Your task to perform on an android device: snooze an email in the gmail app Image 0: 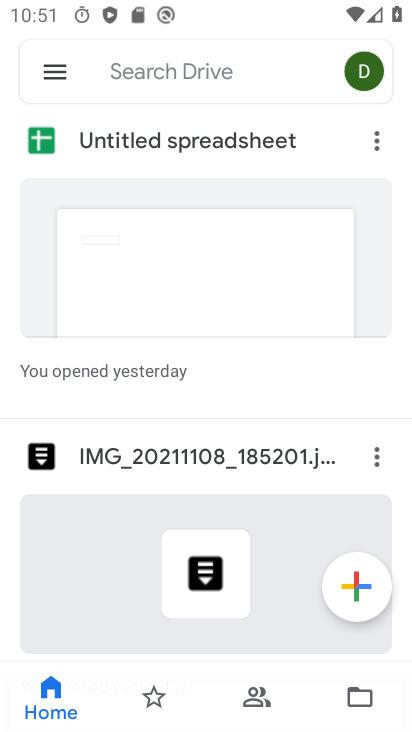
Step 0: press back button
Your task to perform on an android device: snooze an email in the gmail app Image 1: 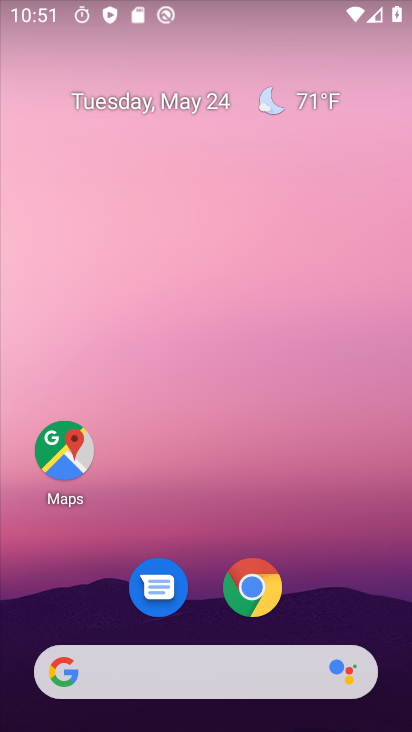
Step 1: drag from (315, 646) to (225, 73)
Your task to perform on an android device: snooze an email in the gmail app Image 2: 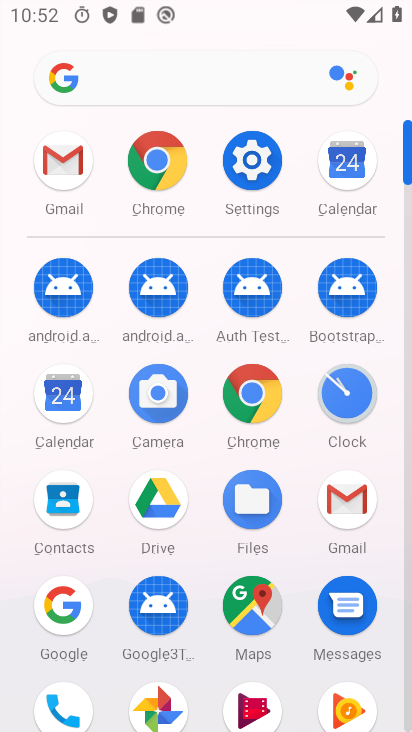
Step 2: click (339, 494)
Your task to perform on an android device: snooze an email in the gmail app Image 3: 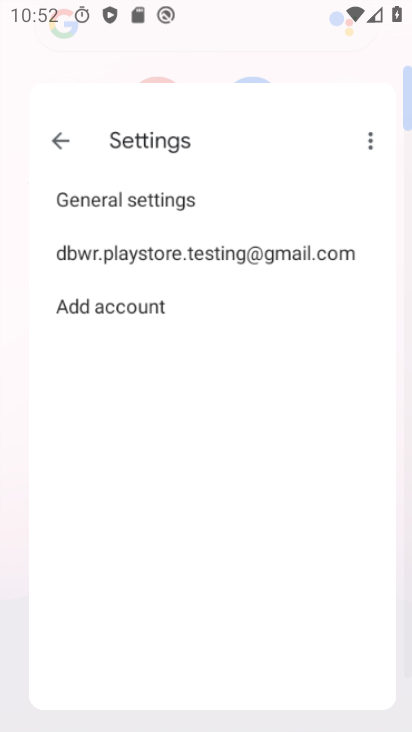
Step 3: click (346, 491)
Your task to perform on an android device: snooze an email in the gmail app Image 4: 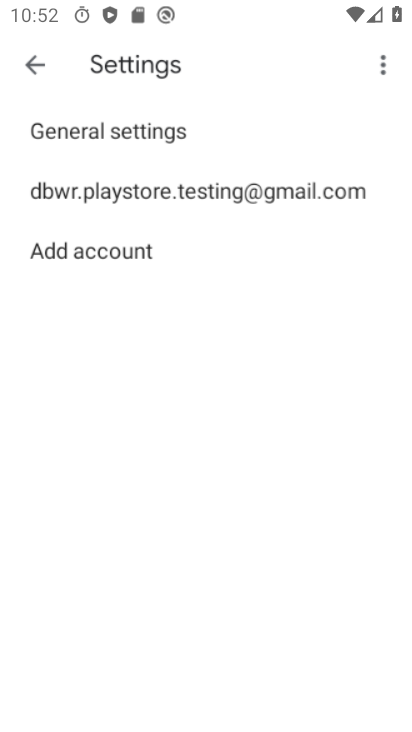
Step 4: click (346, 491)
Your task to perform on an android device: snooze an email in the gmail app Image 5: 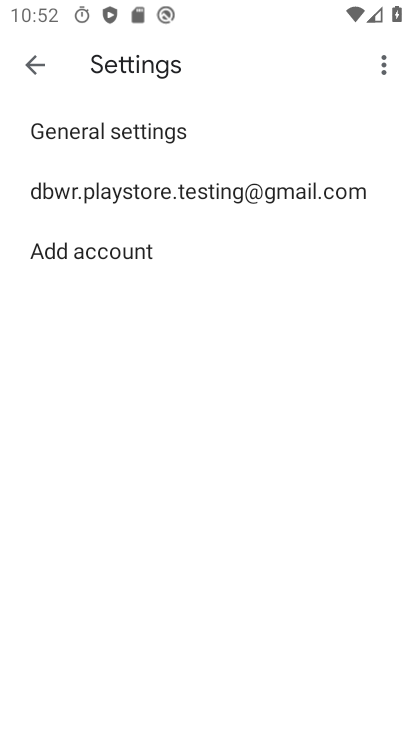
Step 5: click (133, 193)
Your task to perform on an android device: snooze an email in the gmail app Image 6: 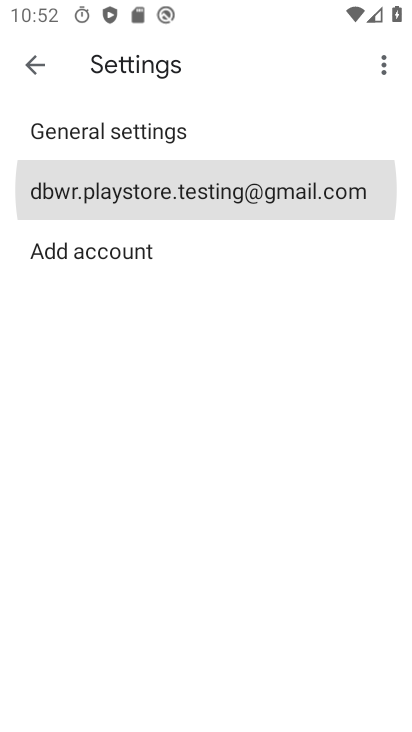
Step 6: click (133, 193)
Your task to perform on an android device: snooze an email in the gmail app Image 7: 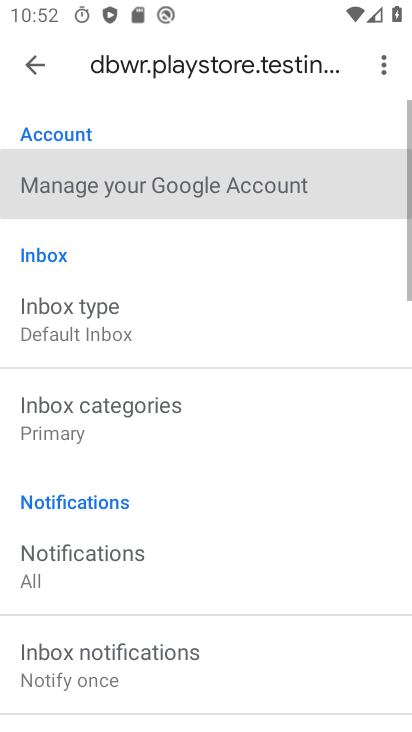
Step 7: click (140, 191)
Your task to perform on an android device: snooze an email in the gmail app Image 8: 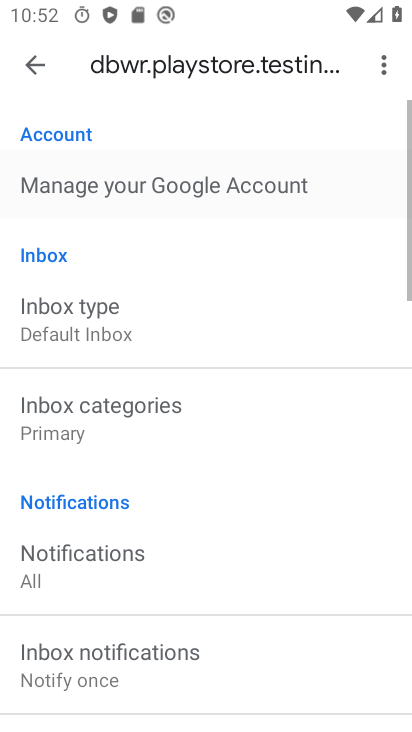
Step 8: click (141, 191)
Your task to perform on an android device: snooze an email in the gmail app Image 9: 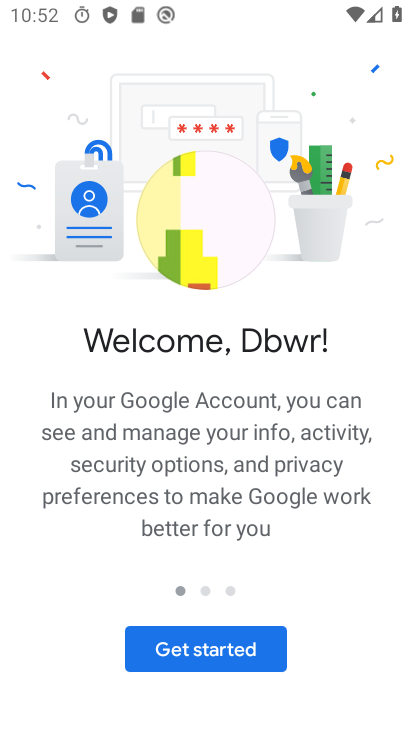
Step 9: click (200, 662)
Your task to perform on an android device: snooze an email in the gmail app Image 10: 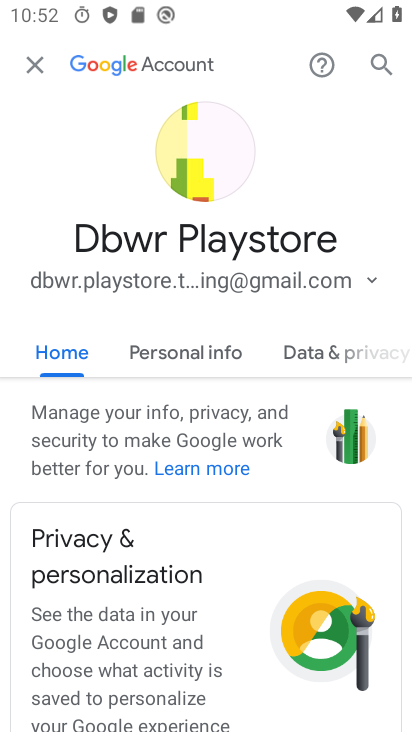
Step 10: click (38, 65)
Your task to perform on an android device: snooze an email in the gmail app Image 11: 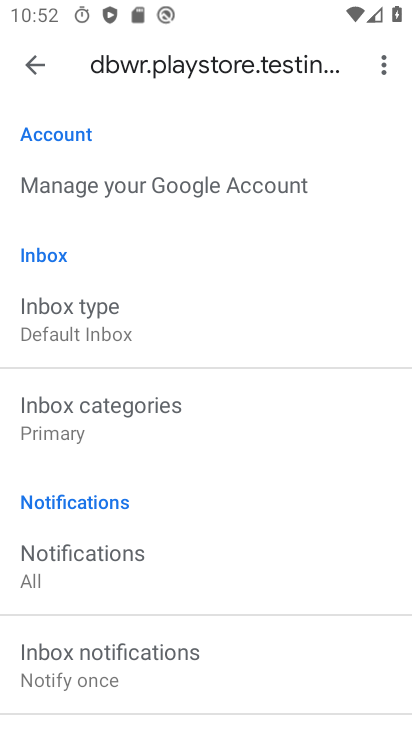
Step 11: drag from (152, 710) to (122, 176)
Your task to perform on an android device: snooze an email in the gmail app Image 12: 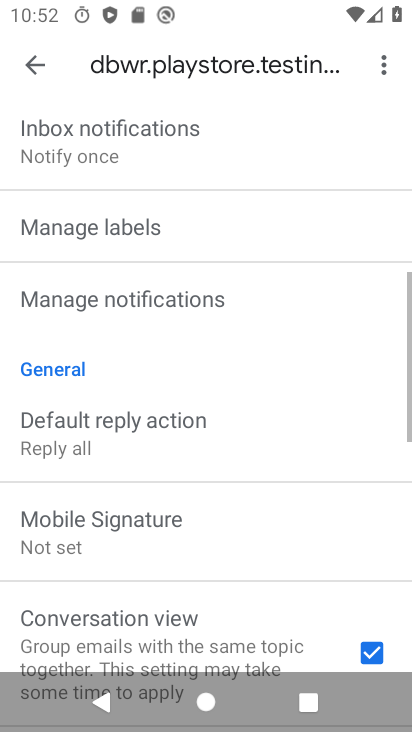
Step 12: drag from (258, 534) to (359, 173)
Your task to perform on an android device: snooze an email in the gmail app Image 13: 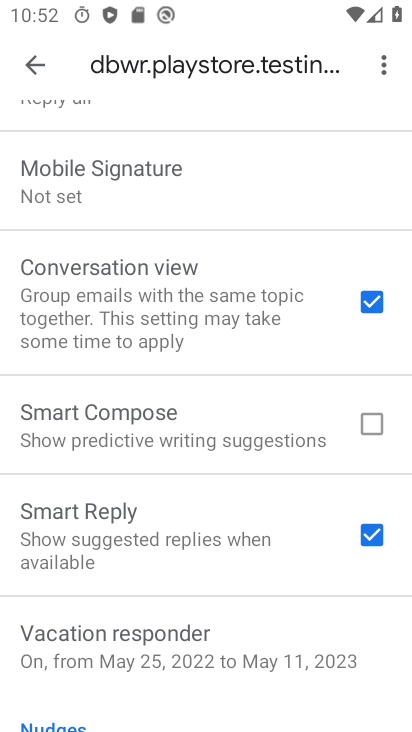
Step 13: press back button
Your task to perform on an android device: snooze an email in the gmail app Image 14: 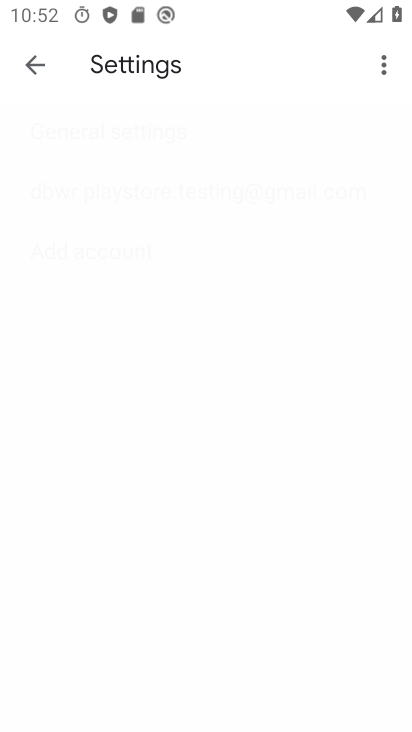
Step 14: press back button
Your task to perform on an android device: snooze an email in the gmail app Image 15: 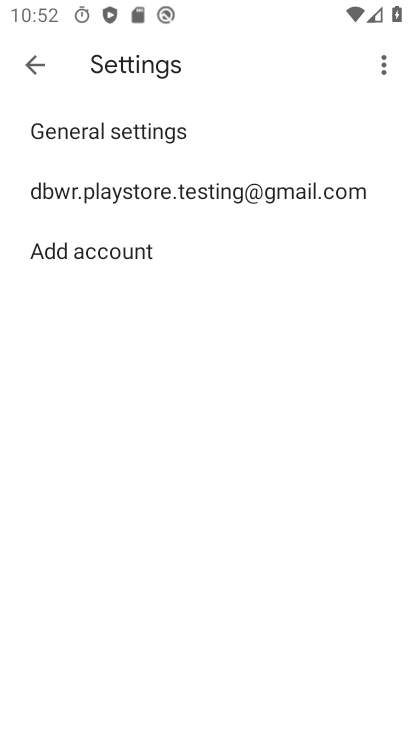
Step 15: press back button
Your task to perform on an android device: snooze an email in the gmail app Image 16: 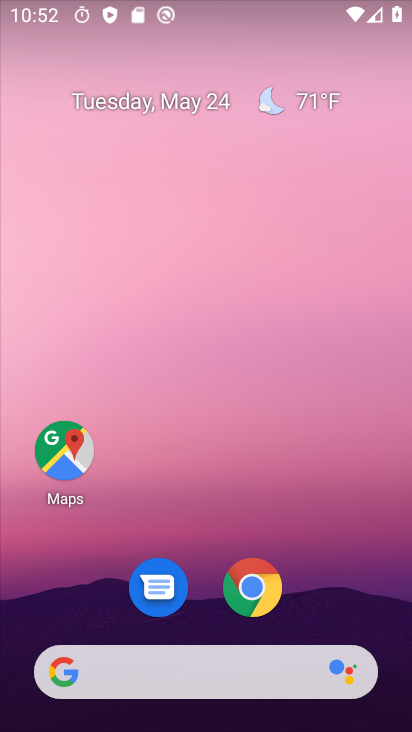
Step 16: drag from (280, 708) to (178, 205)
Your task to perform on an android device: snooze an email in the gmail app Image 17: 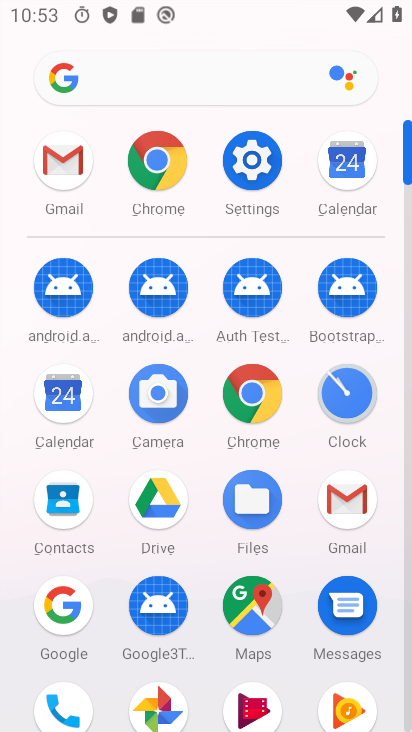
Step 17: click (342, 503)
Your task to perform on an android device: snooze an email in the gmail app Image 18: 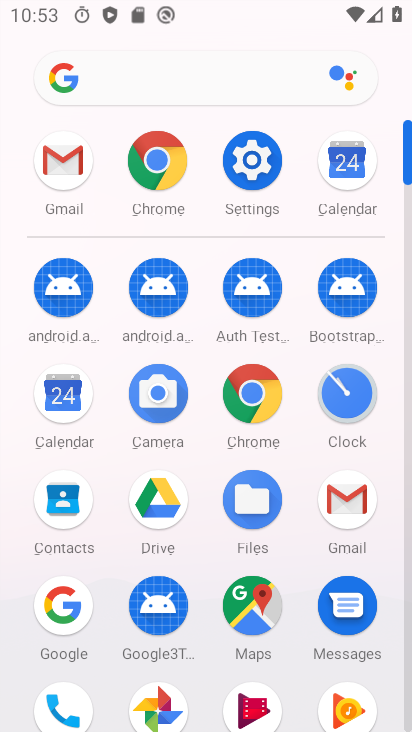
Step 18: click (343, 501)
Your task to perform on an android device: snooze an email in the gmail app Image 19: 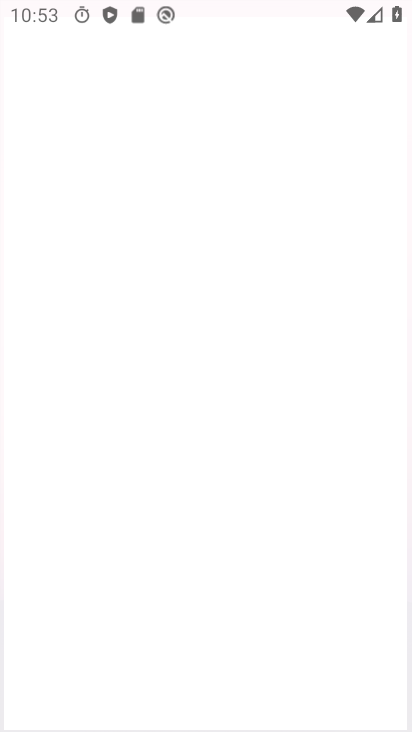
Step 19: click (344, 500)
Your task to perform on an android device: snooze an email in the gmail app Image 20: 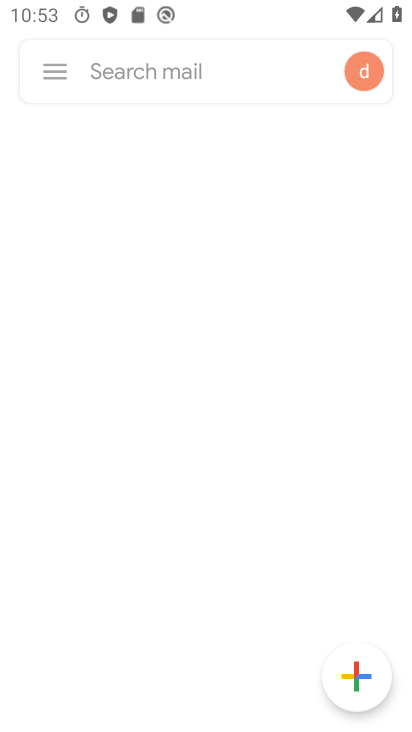
Step 20: click (344, 500)
Your task to perform on an android device: snooze an email in the gmail app Image 21: 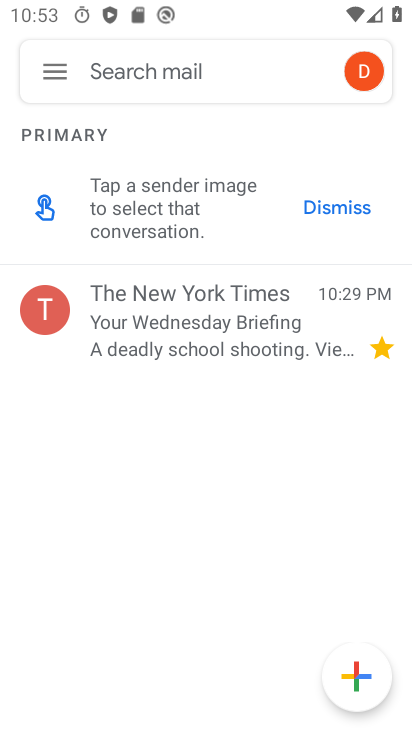
Step 21: click (49, 80)
Your task to perform on an android device: snooze an email in the gmail app Image 22: 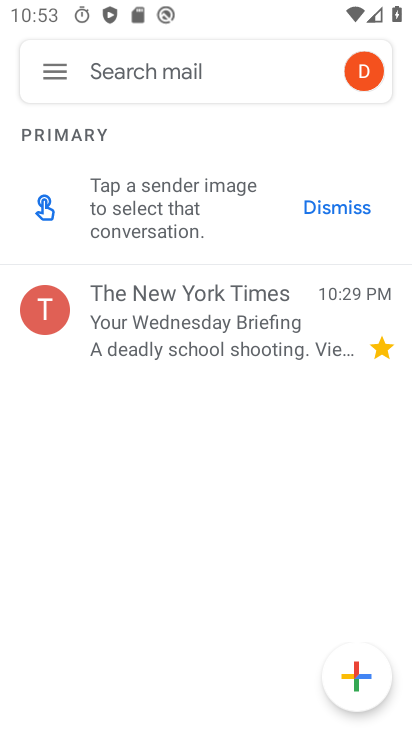
Step 22: click (50, 76)
Your task to perform on an android device: snooze an email in the gmail app Image 23: 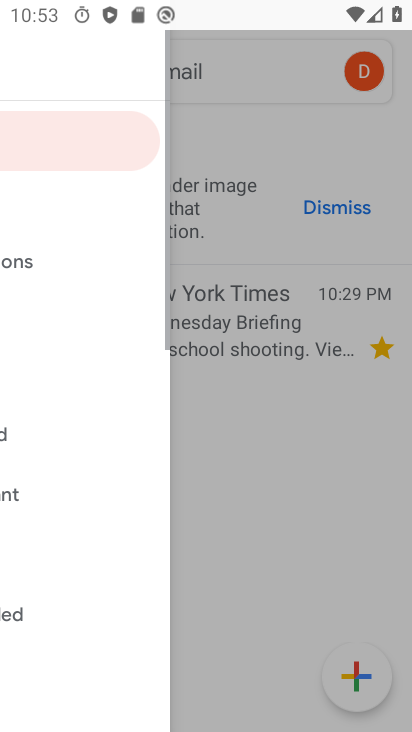
Step 23: click (54, 72)
Your task to perform on an android device: snooze an email in the gmail app Image 24: 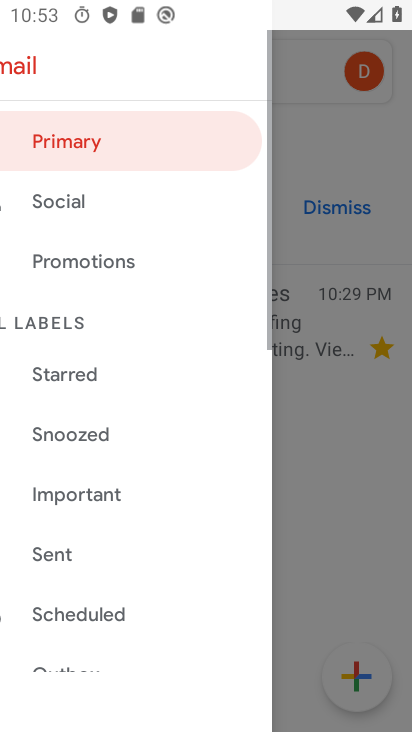
Step 24: drag from (54, 72) to (105, 613)
Your task to perform on an android device: snooze an email in the gmail app Image 25: 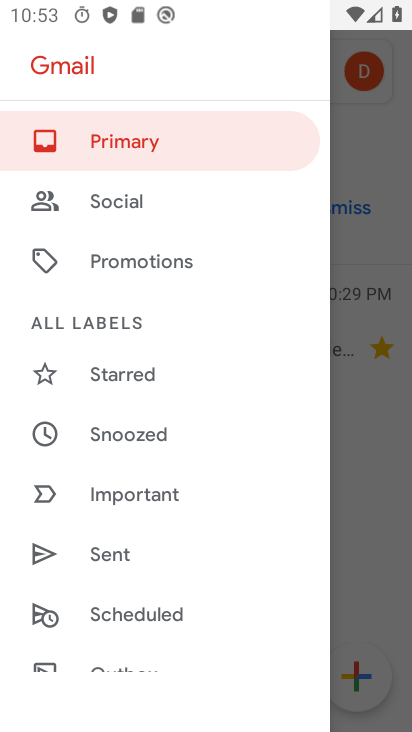
Step 25: drag from (184, 547) to (201, 107)
Your task to perform on an android device: snooze an email in the gmail app Image 26: 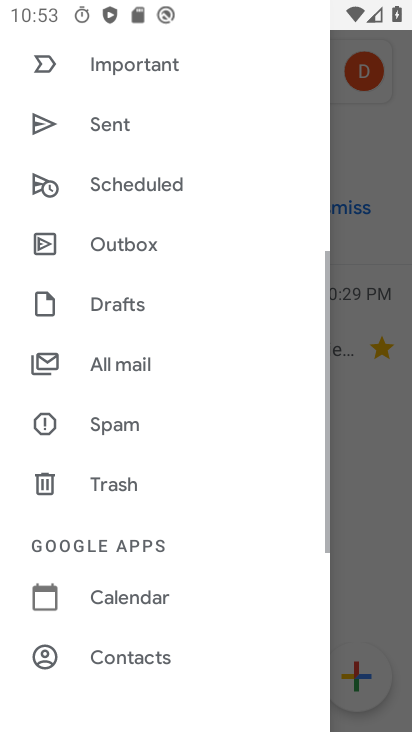
Step 26: drag from (180, 501) to (208, 84)
Your task to perform on an android device: snooze an email in the gmail app Image 27: 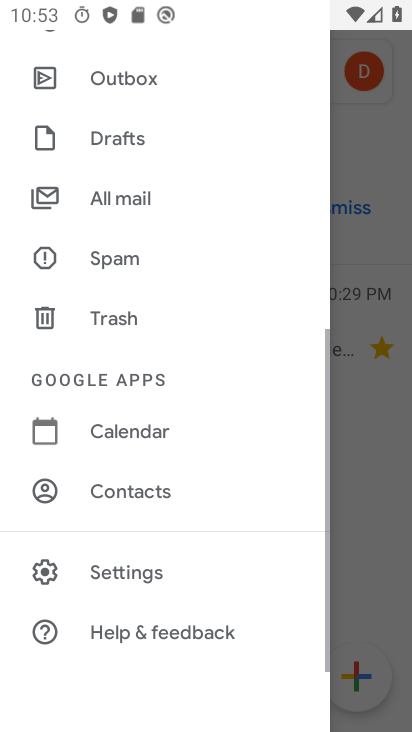
Step 27: drag from (196, 381) to (271, 14)
Your task to perform on an android device: snooze an email in the gmail app Image 28: 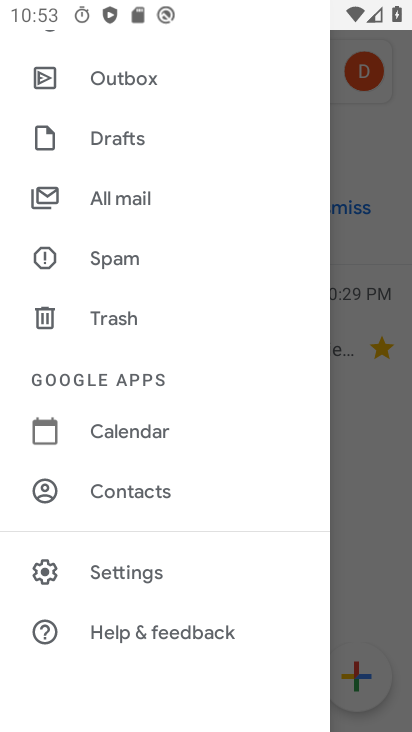
Step 28: click (121, 575)
Your task to perform on an android device: snooze an email in the gmail app Image 29: 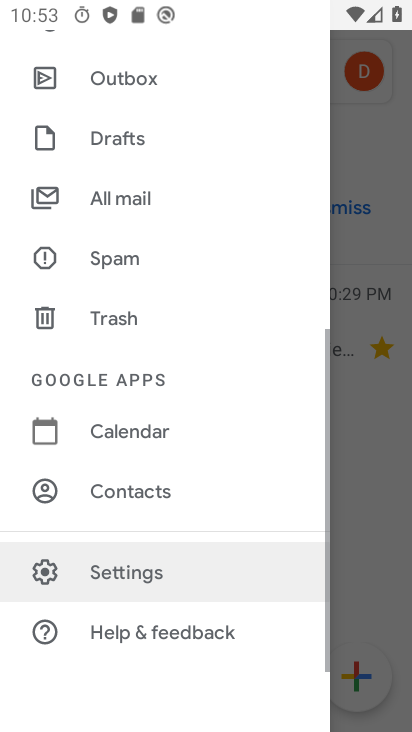
Step 29: click (121, 575)
Your task to perform on an android device: snooze an email in the gmail app Image 30: 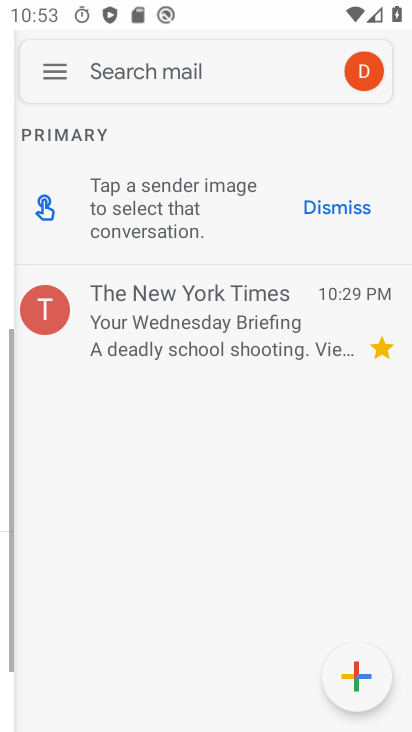
Step 30: click (121, 574)
Your task to perform on an android device: snooze an email in the gmail app Image 31: 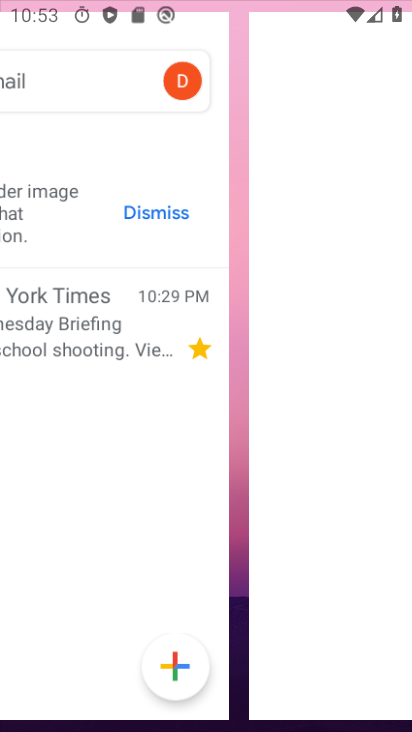
Step 31: click (121, 574)
Your task to perform on an android device: snooze an email in the gmail app Image 32: 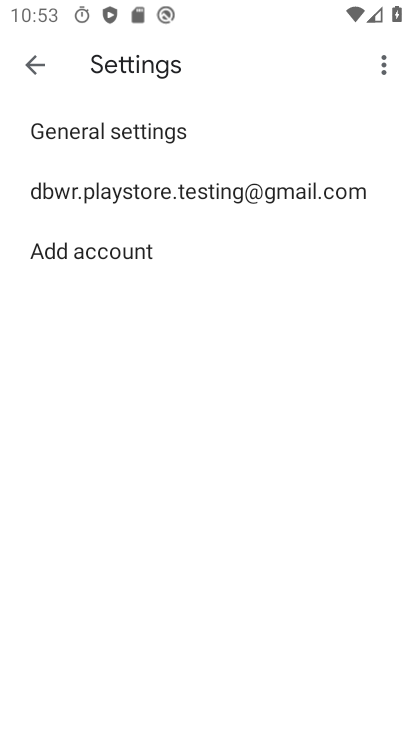
Step 32: click (124, 197)
Your task to perform on an android device: snooze an email in the gmail app Image 33: 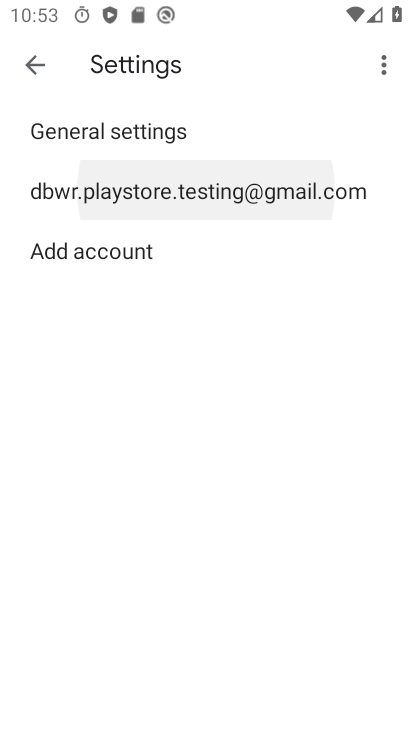
Step 33: click (129, 192)
Your task to perform on an android device: snooze an email in the gmail app Image 34: 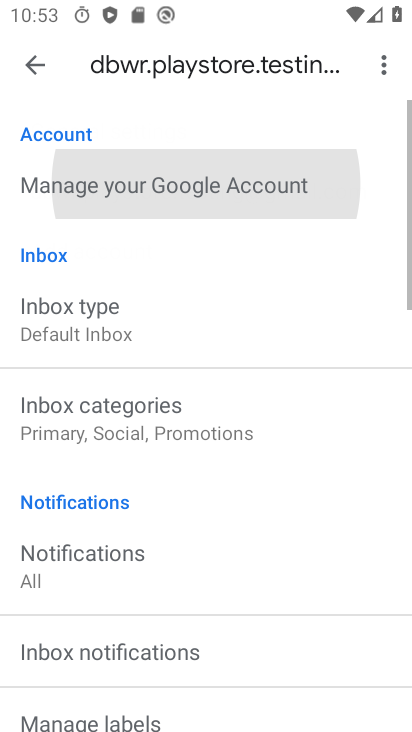
Step 34: click (129, 192)
Your task to perform on an android device: snooze an email in the gmail app Image 35: 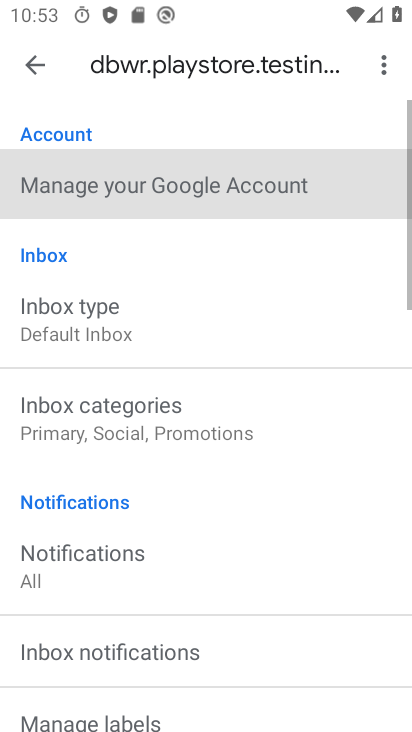
Step 35: click (129, 192)
Your task to perform on an android device: snooze an email in the gmail app Image 36: 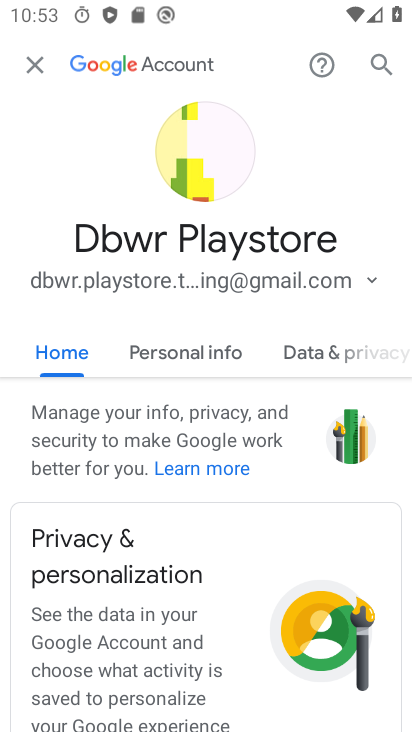
Step 36: click (34, 64)
Your task to perform on an android device: snooze an email in the gmail app Image 37: 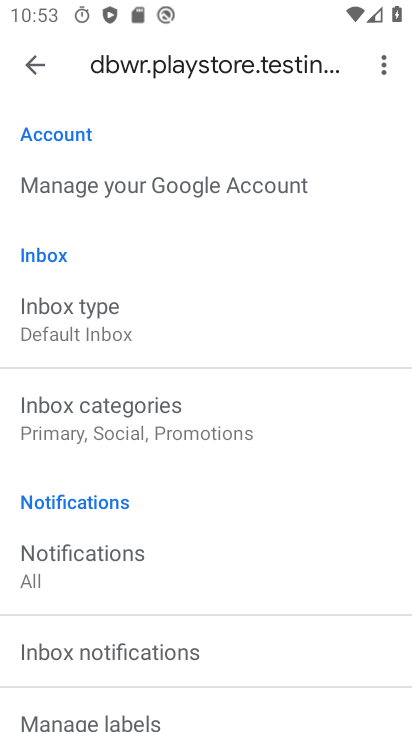
Step 37: click (257, 641)
Your task to perform on an android device: snooze an email in the gmail app Image 38: 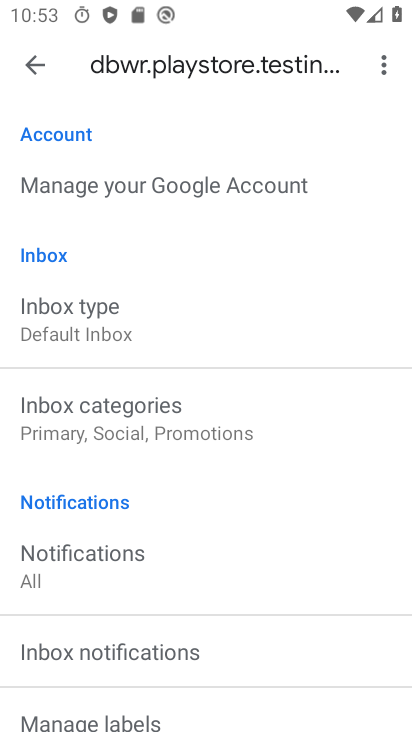
Step 38: drag from (113, 243) to (229, 564)
Your task to perform on an android device: snooze an email in the gmail app Image 39: 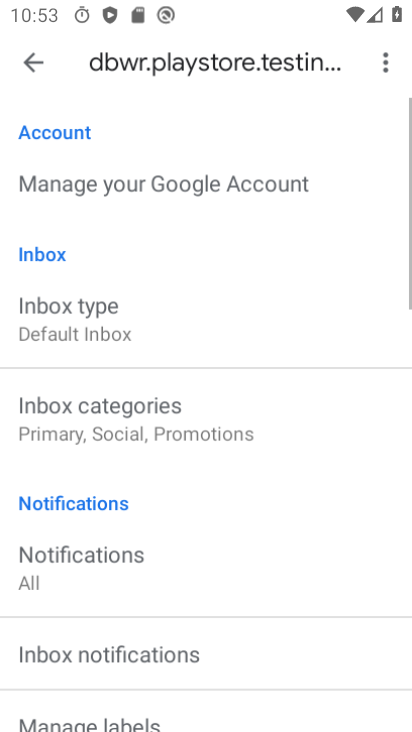
Step 39: drag from (92, 285) to (227, 722)
Your task to perform on an android device: snooze an email in the gmail app Image 40: 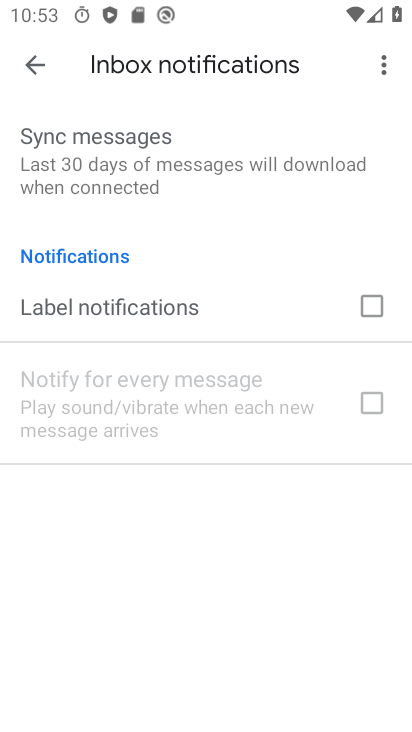
Step 40: click (32, 56)
Your task to perform on an android device: snooze an email in the gmail app Image 41: 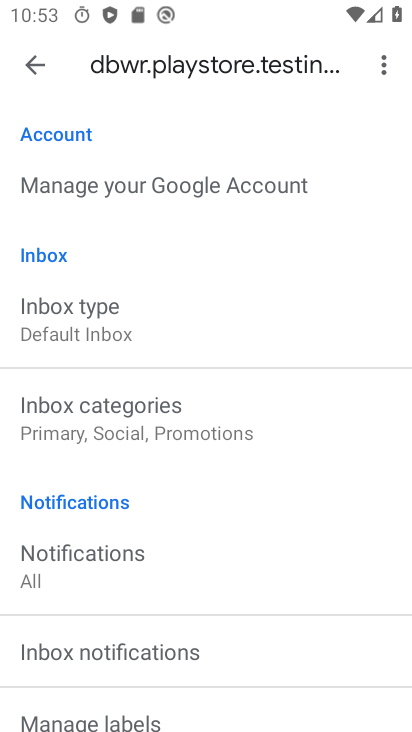
Step 41: click (28, 68)
Your task to perform on an android device: snooze an email in the gmail app Image 42: 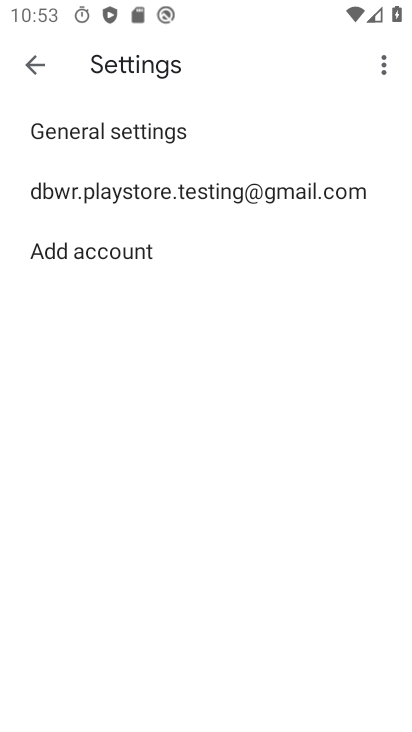
Step 42: click (27, 64)
Your task to perform on an android device: snooze an email in the gmail app Image 43: 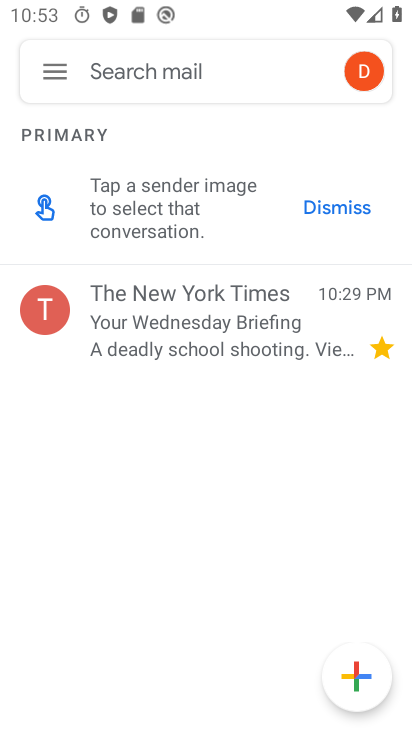
Step 43: click (55, 71)
Your task to perform on an android device: snooze an email in the gmail app Image 44: 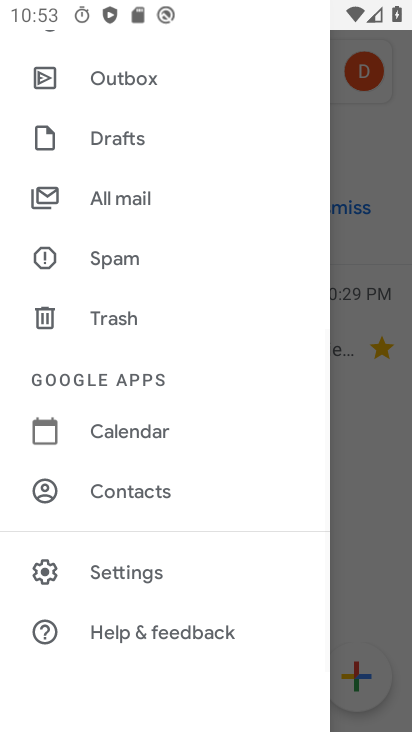
Step 44: click (129, 203)
Your task to perform on an android device: snooze an email in the gmail app Image 45: 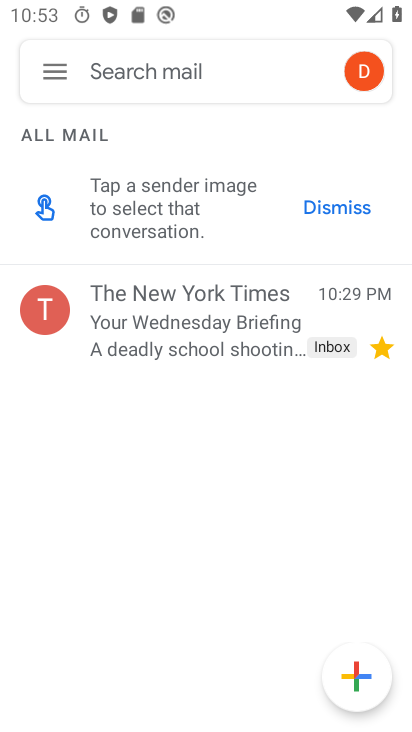
Step 45: task complete